Your task to perform on an android device: Go to CNN.com Image 0: 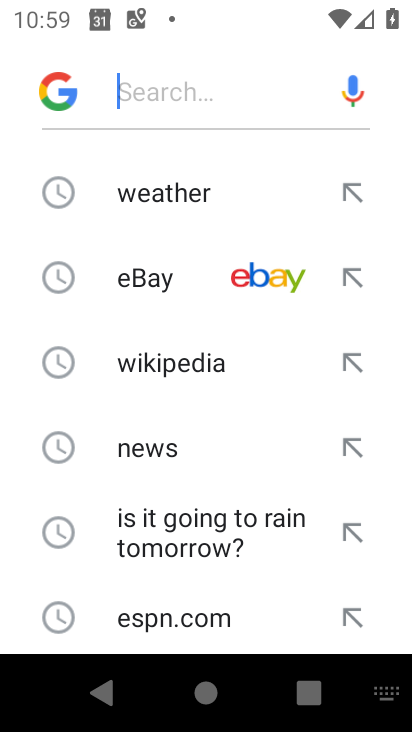
Step 0: press back button
Your task to perform on an android device: Go to CNN.com Image 1: 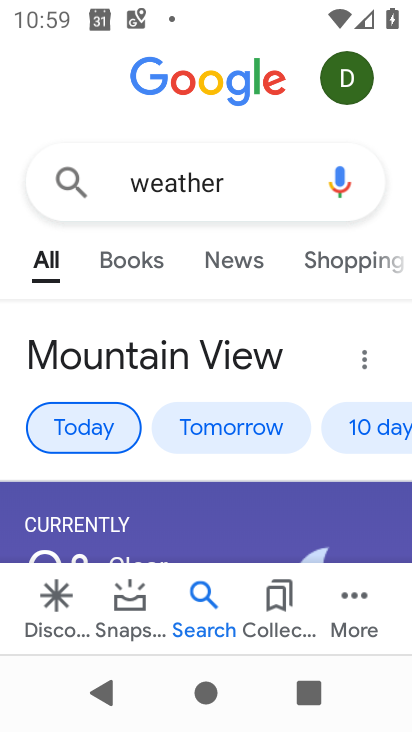
Step 1: click (213, 174)
Your task to perform on an android device: Go to CNN.com Image 2: 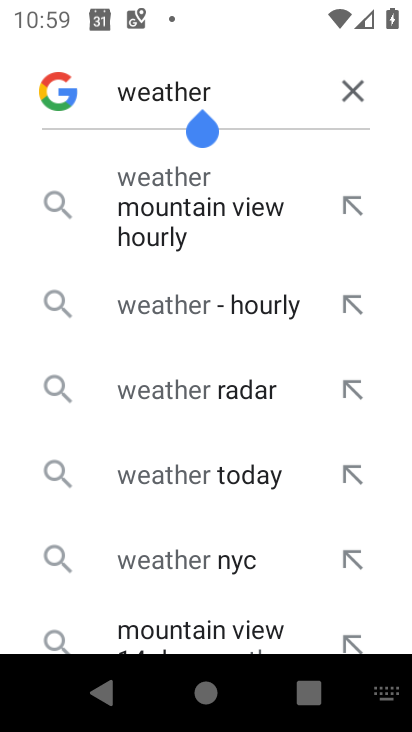
Step 2: click (353, 81)
Your task to perform on an android device: Go to CNN.com Image 3: 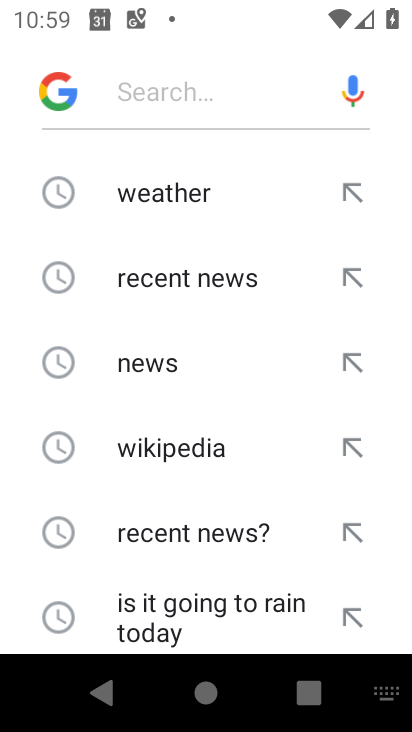
Step 3: type "www.cnn.com"
Your task to perform on an android device: Go to CNN.com Image 4: 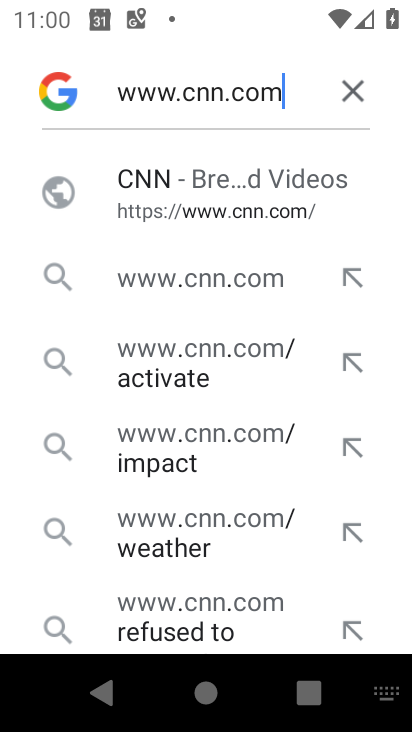
Step 4: click (179, 211)
Your task to perform on an android device: Go to CNN.com Image 5: 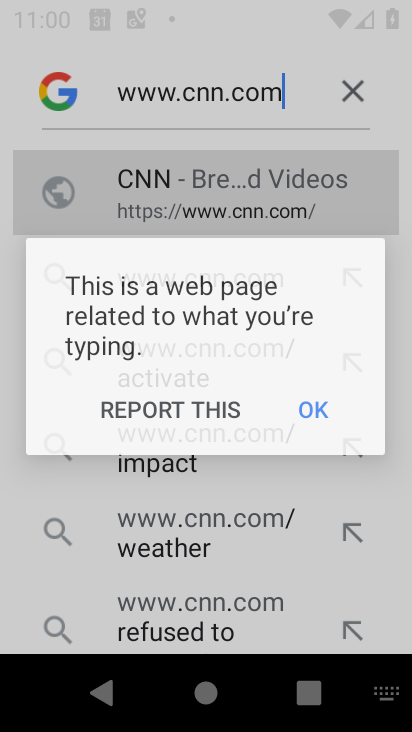
Step 5: click (181, 209)
Your task to perform on an android device: Go to CNN.com Image 6: 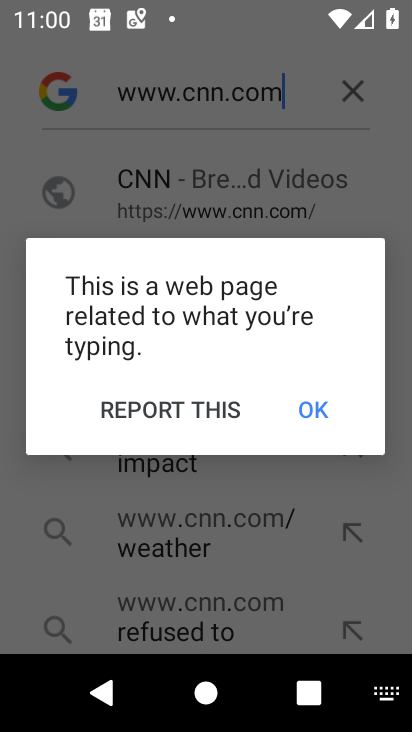
Step 6: click (318, 400)
Your task to perform on an android device: Go to CNN.com Image 7: 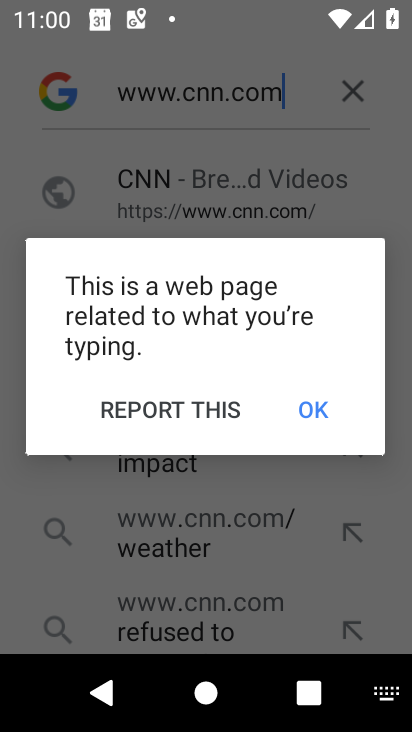
Step 7: click (318, 400)
Your task to perform on an android device: Go to CNN.com Image 8: 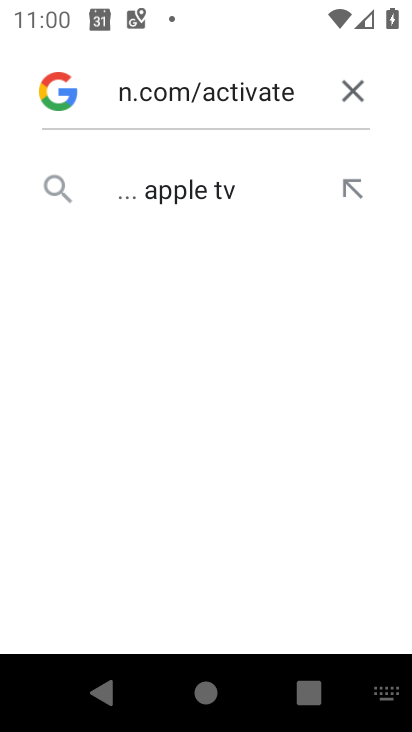
Step 8: click (189, 197)
Your task to perform on an android device: Go to CNN.com Image 9: 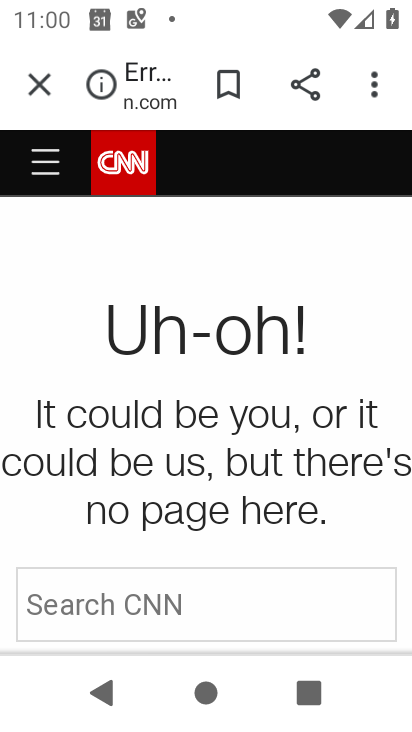
Step 9: task complete